Your task to perform on an android device: Open settings Image 0: 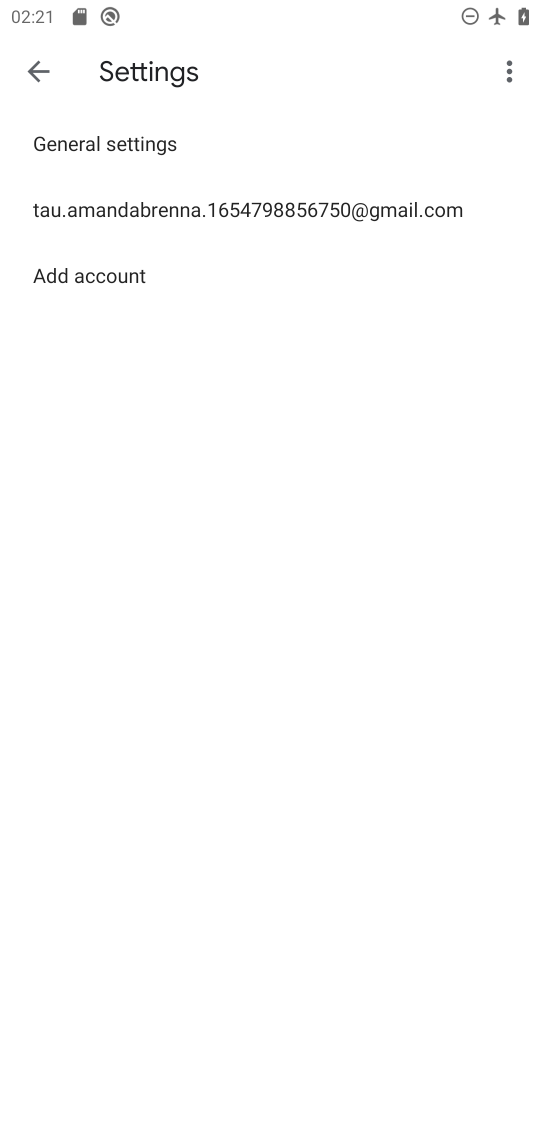
Step 0: press back button
Your task to perform on an android device: Open settings Image 1: 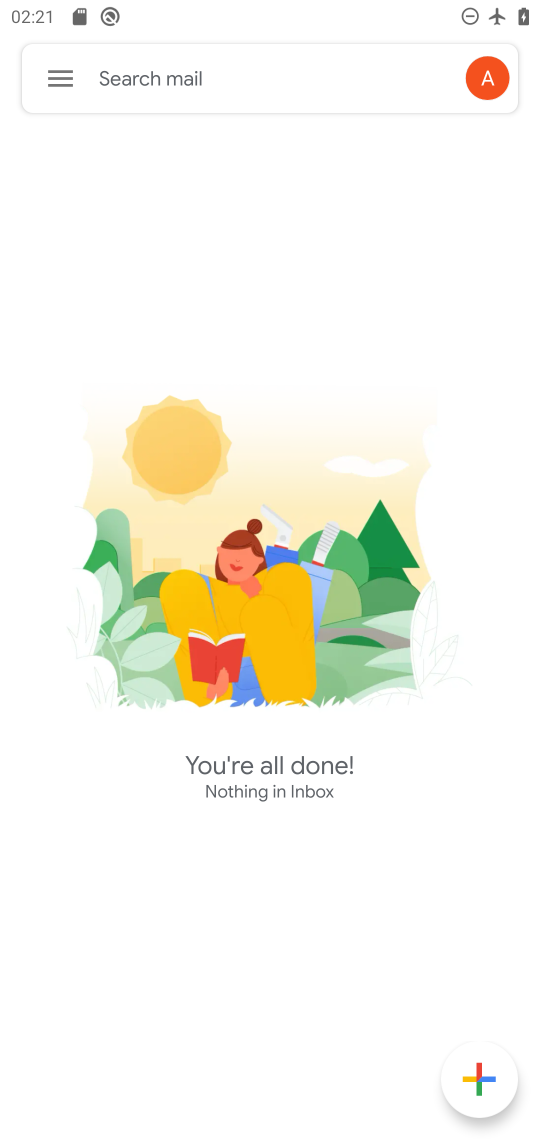
Step 1: press home button
Your task to perform on an android device: Open settings Image 2: 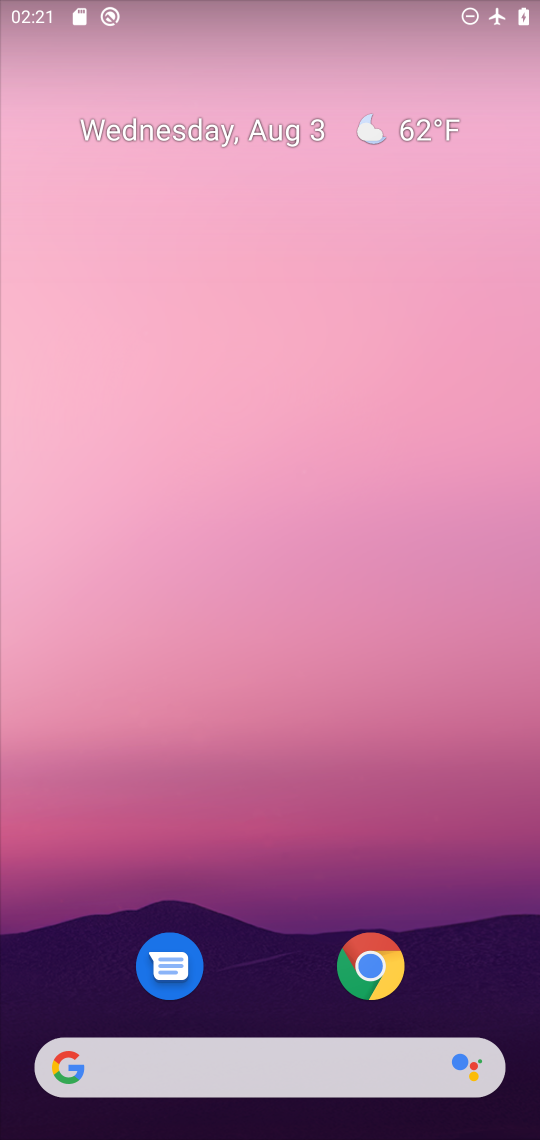
Step 2: drag from (285, 993) to (264, 364)
Your task to perform on an android device: Open settings Image 3: 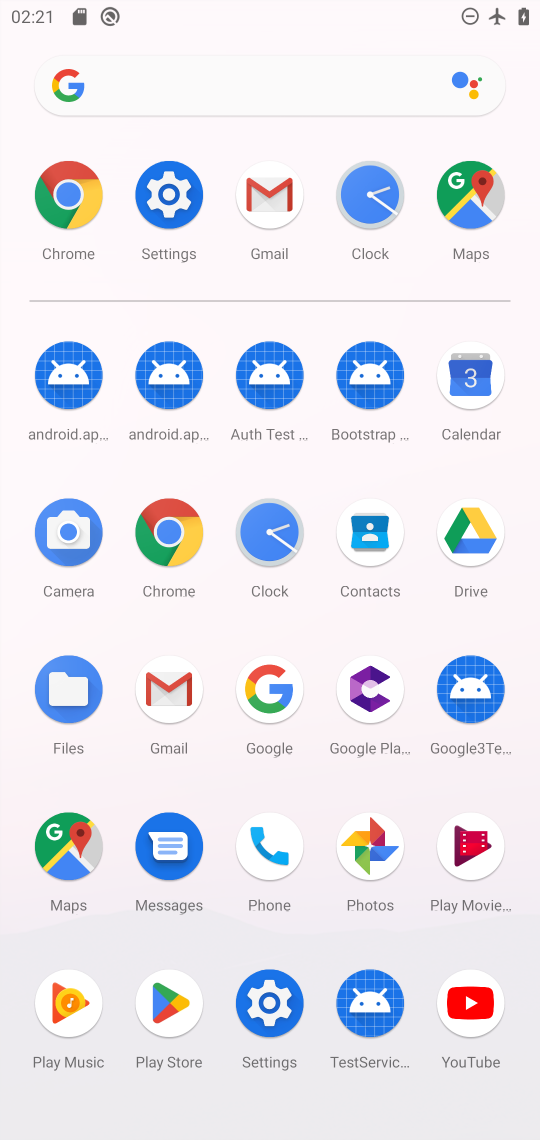
Step 3: click (189, 200)
Your task to perform on an android device: Open settings Image 4: 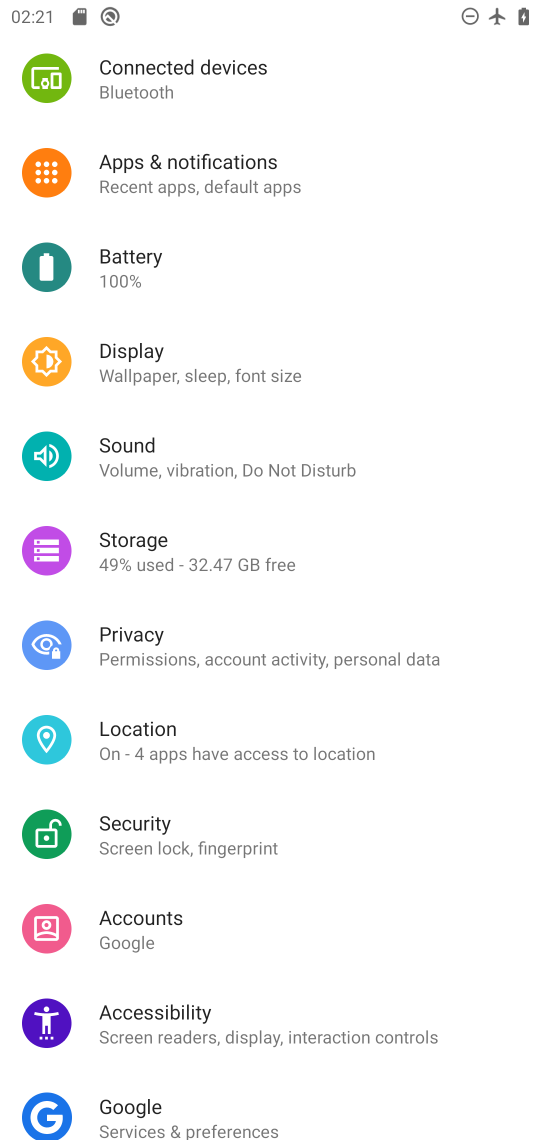
Step 4: task complete